Your task to perform on an android device: check google app version Image 0: 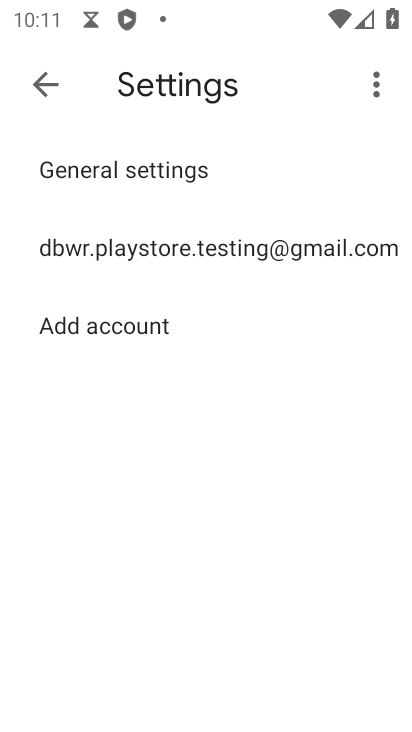
Step 0: press home button
Your task to perform on an android device: check google app version Image 1: 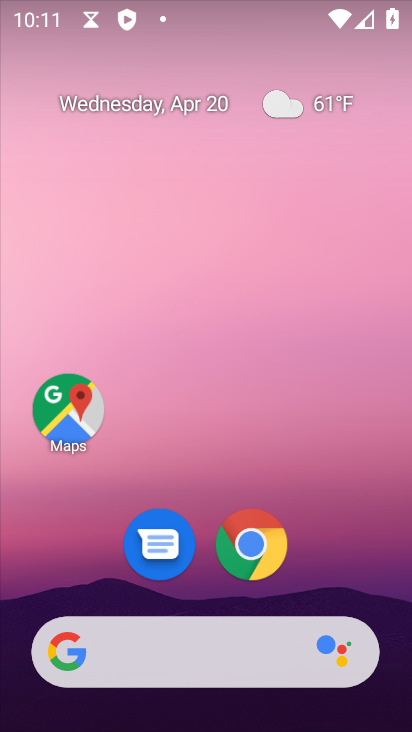
Step 1: drag from (233, 404) to (264, 222)
Your task to perform on an android device: check google app version Image 2: 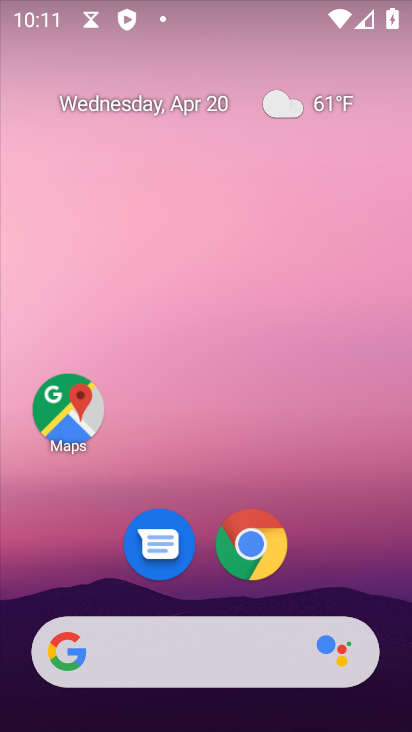
Step 2: drag from (172, 600) to (292, 74)
Your task to perform on an android device: check google app version Image 3: 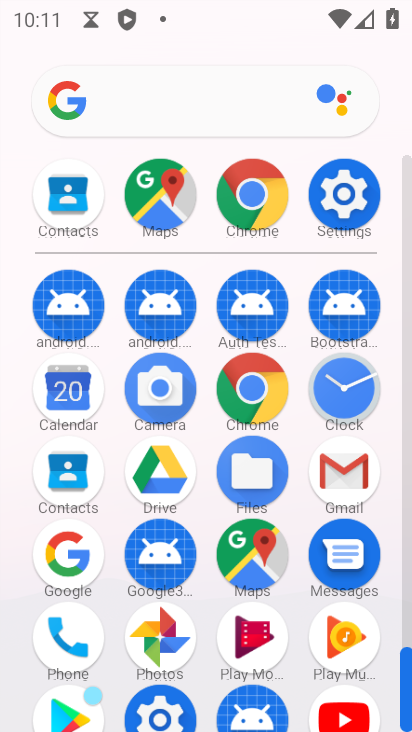
Step 3: click (74, 558)
Your task to perform on an android device: check google app version Image 4: 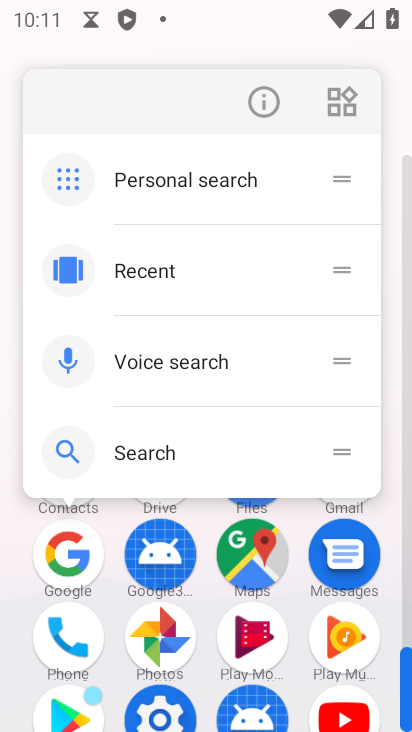
Step 4: click (262, 101)
Your task to perform on an android device: check google app version Image 5: 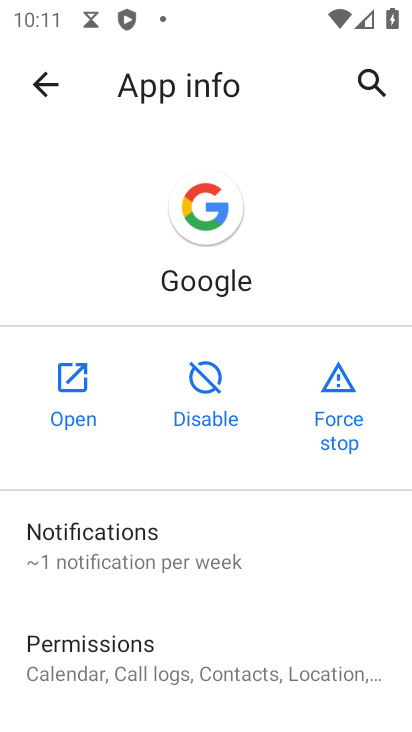
Step 5: drag from (212, 580) to (368, 1)
Your task to perform on an android device: check google app version Image 6: 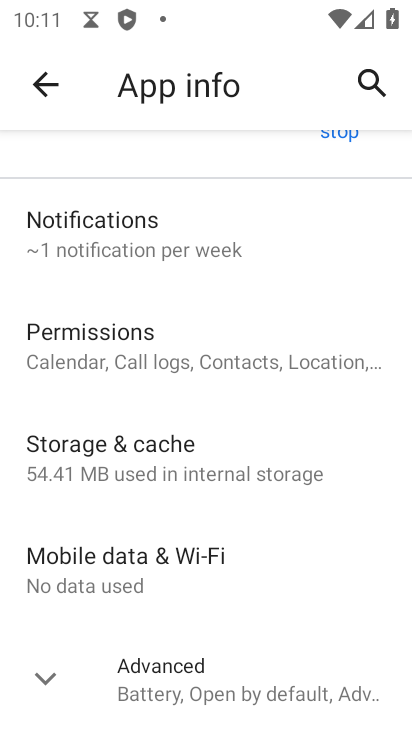
Step 6: click (59, 677)
Your task to perform on an android device: check google app version Image 7: 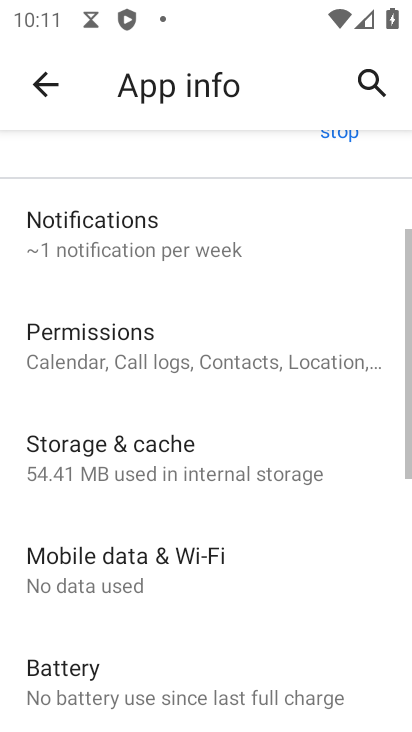
Step 7: task complete